Your task to perform on an android device: Search for corsair k70 on ebay, select the first entry, add it to the cart, then select checkout. Image 0: 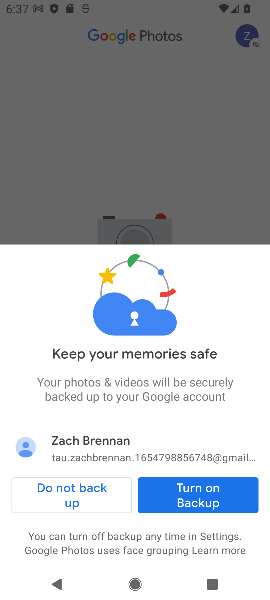
Step 0: press home button
Your task to perform on an android device: Search for corsair k70 on ebay, select the first entry, add it to the cart, then select checkout. Image 1: 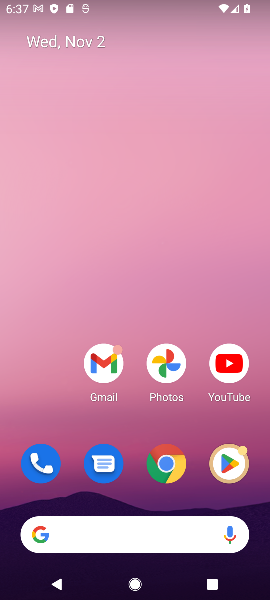
Step 1: click (167, 471)
Your task to perform on an android device: Search for corsair k70 on ebay, select the first entry, add it to the cart, then select checkout. Image 2: 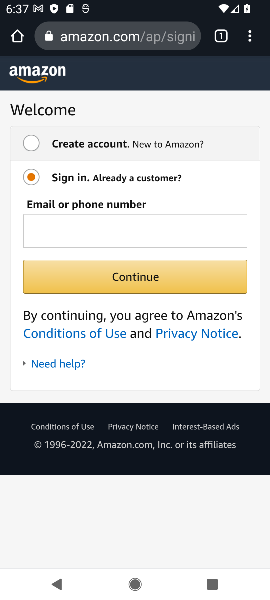
Step 2: click (95, 37)
Your task to perform on an android device: Search for corsair k70 on ebay, select the first entry, add it to the cart, then select checkout. Image 3: 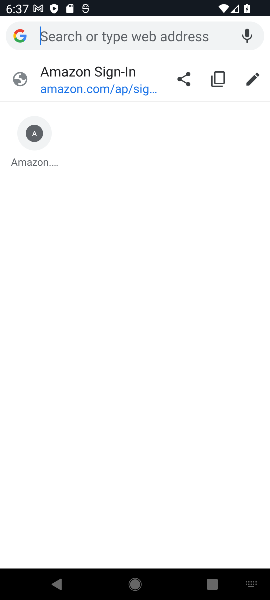
Step 3: type "ebay.com"
Your task to perform on an android device: Search for corsair k70 on ebay, select the first entry, add it to the cart, then select checkout. Image 4: 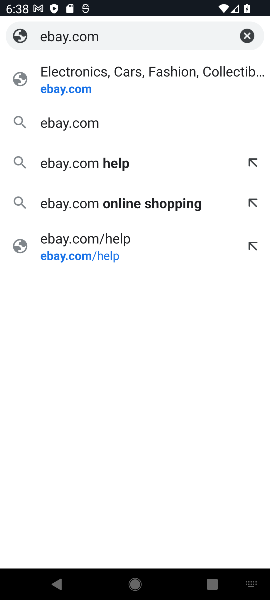
Step 4: click (67, 90)
Your task to perform on an android device: Search for corsair k70 on ebay, select the first entry, add it to the cart, then select checkout. Image 5: 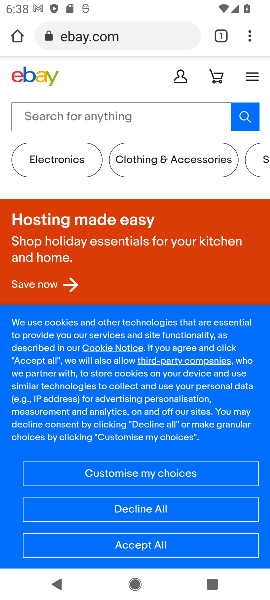
Step 5: click (61, 110)
Your task to perform on an android device: Search for corsair k70 on ebay, select the first entry, add it to the cart, then select checkout. Image 6: 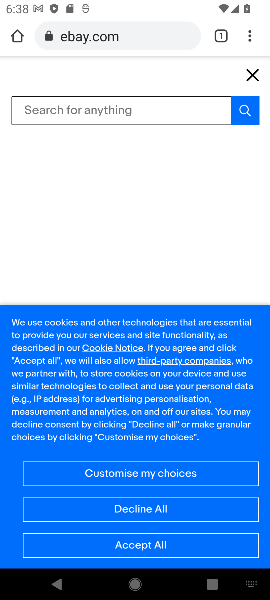
Step 6: type "corsair k70"
Your task to perform on an android device: Search for corsair k70 on ebay, select the first entry, add it to the cart, then select checkout. Image 7: 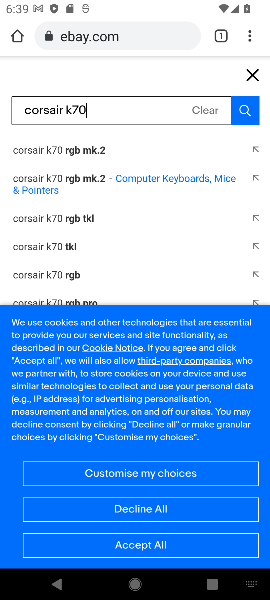
Step 7: click (48, 153)
Your task to perform on an android device: Search for corsair k70 on ebay, select the first entry, add it to the cart, then select checkout. Image 8: 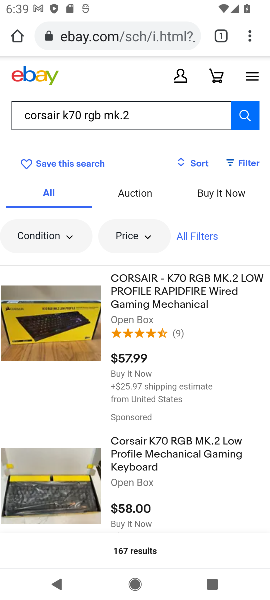
Step 8: click (109, 327)
Your task to perform on an android device: Search for corsair k70 on ebay, select the first entry, add it to the cart, then select checkout. Image 9: 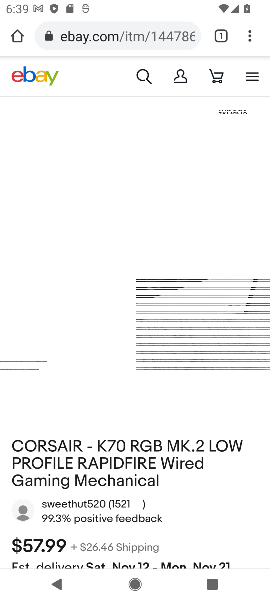
Step 9: drag from (136, 436) to (112, 73)
Your task to perform on an android device: Search for corsair k70 on ebay, select the first entry, add it to the cart, then select checkout. Image 10: 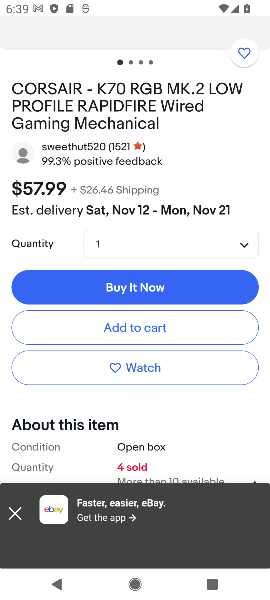
Step 10: click (112, 328)
Your task to perform on an android device: Search for corsair k70 on ebay, select the first entry, add it to the cart, then select checkout. Image 11: 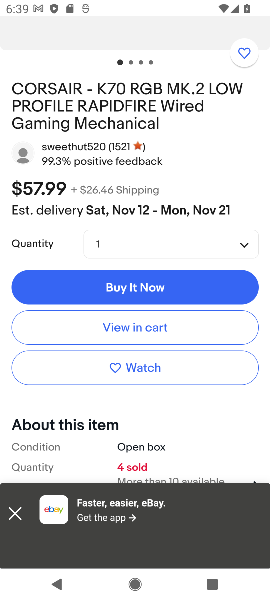
Step 11: click (112, 328)
Your task to perform on an android device: Search for corsair k70 on ebay, select the first entry, add it to the cart, then select checkout. Image 12: 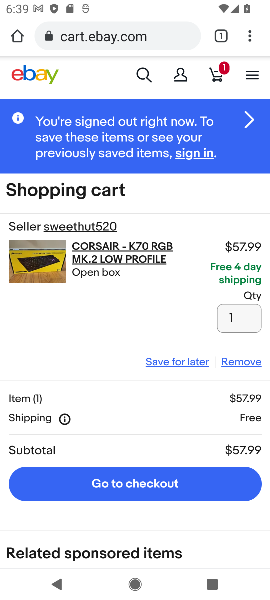
Step 12: click (134, 479)
Your task to perform on an android device: Search for corsair k70 on ebay, select the first entry, add it to the cart, then select checkout. Image 13: 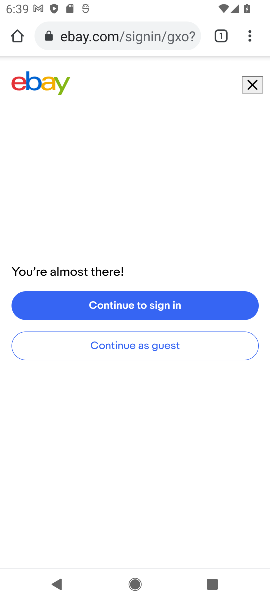
Step 13: task complete